Your task to perform on an android device: Check the weather Image 0: 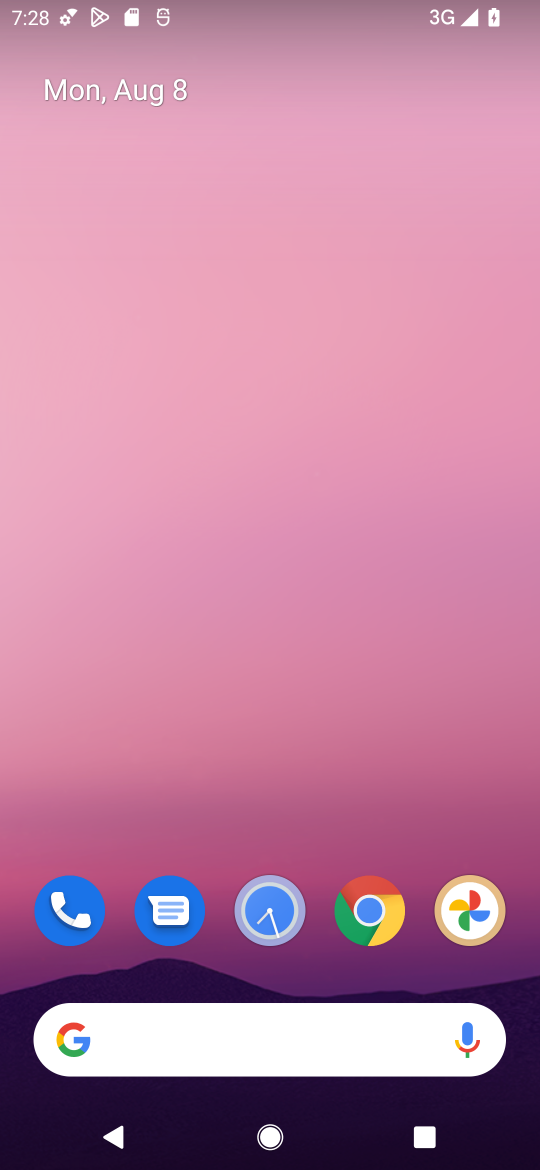
Step 0: click (241, 1035)
Your task to perform on an android device: Check the weather Image 1: 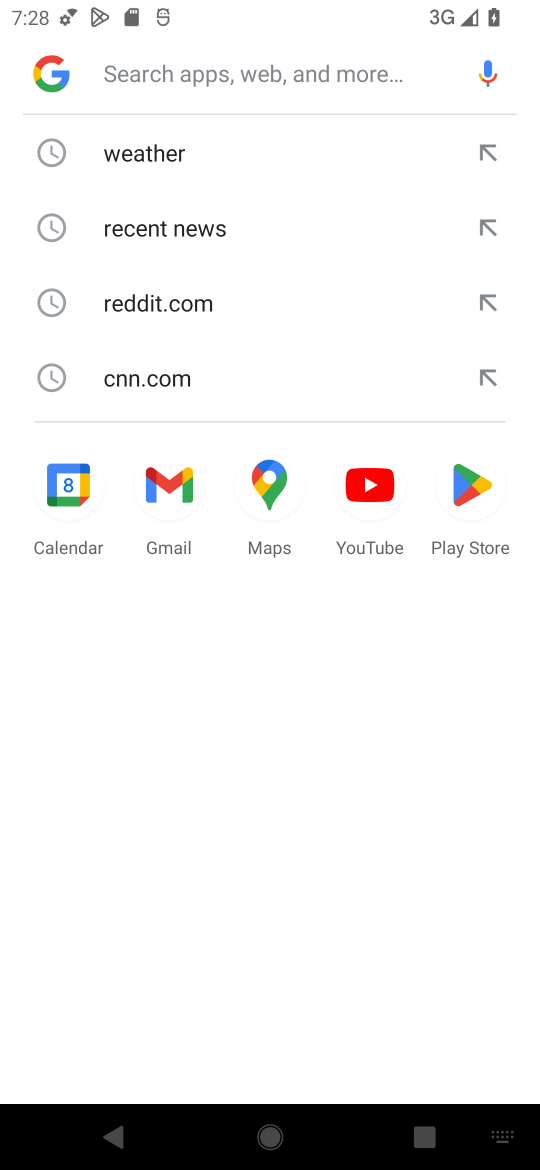
Step 1: click (143, 159)
Your task to perform on an android device: Check the weather Image 2: 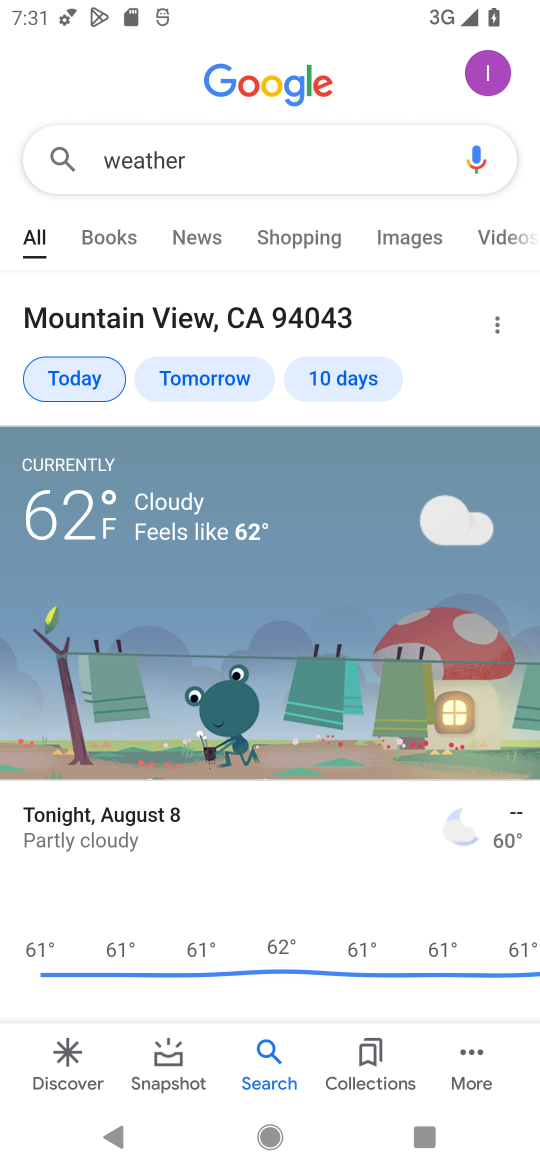
Step 2: task complete